Your task to perform on an android device: Open calendar and show me the second week of next month Image 0: 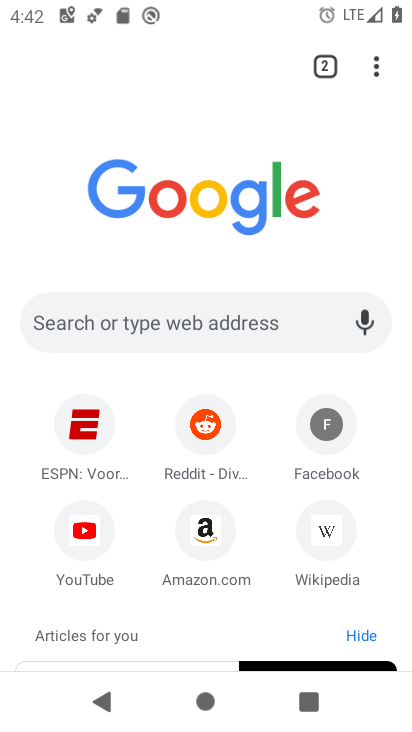
Step 0: press home button
Your task to perform on an android device: Open calendar and show me the second week of next month Image 1: 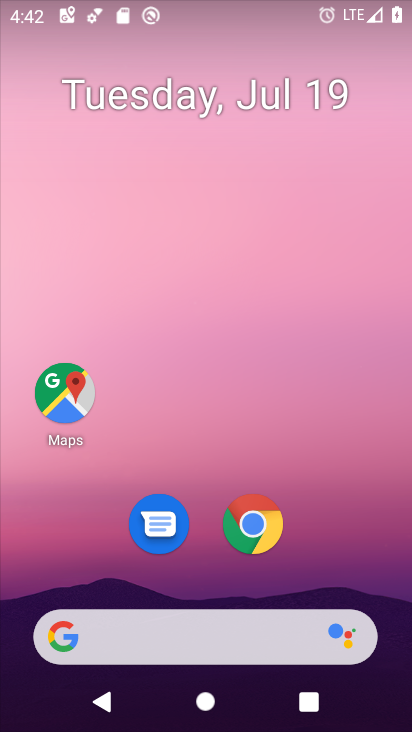
Step 1: drag from (321, 415) to (332, 108)
Your task to perform on an android device: Open calendar and show me the second week of next month Image 2: 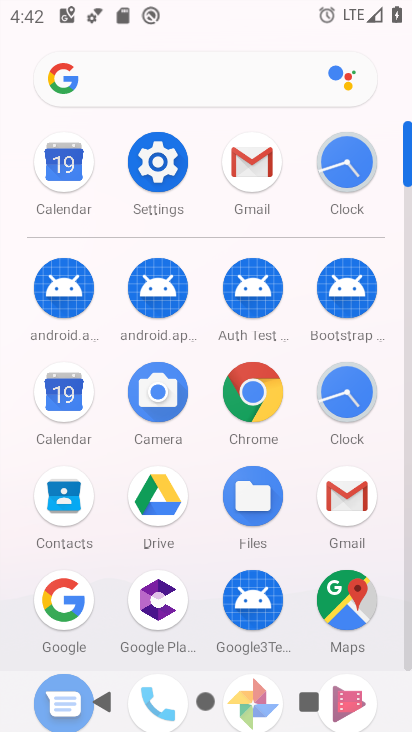
Step 2: click (71, 176)
Your task to perform on an android device: Open calendar and show me the second week of next month Image 3: 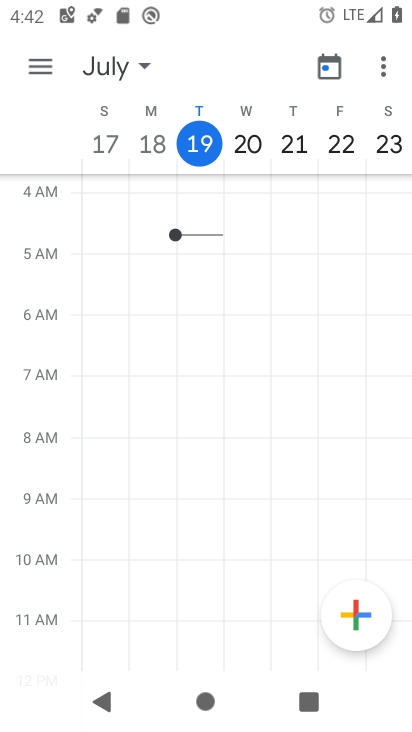
Step 3: task complete